Your task to perform on an android device: toggle javascript in the chrome app Image 0: 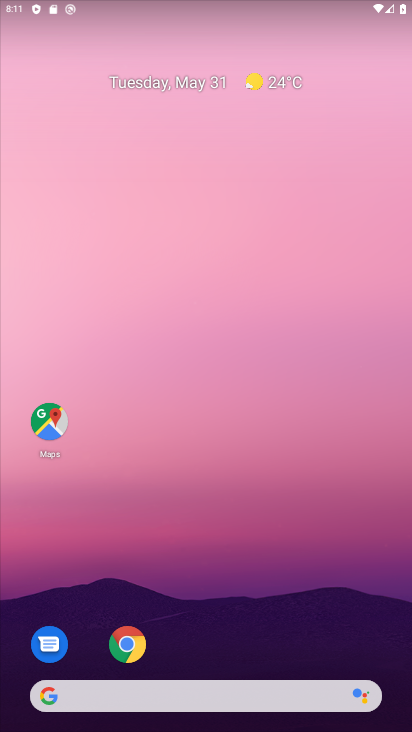
Step 0: click (121, 643)
Your task to perform on an android device: toggle javascript in the chrome app Image 1: 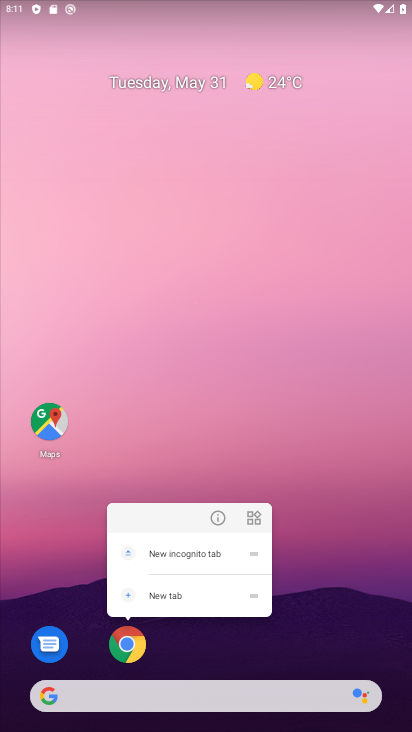
Step 1: click (216, 510)
Your task to perform on an android device: toggle javascript in the chrome app Image 2: 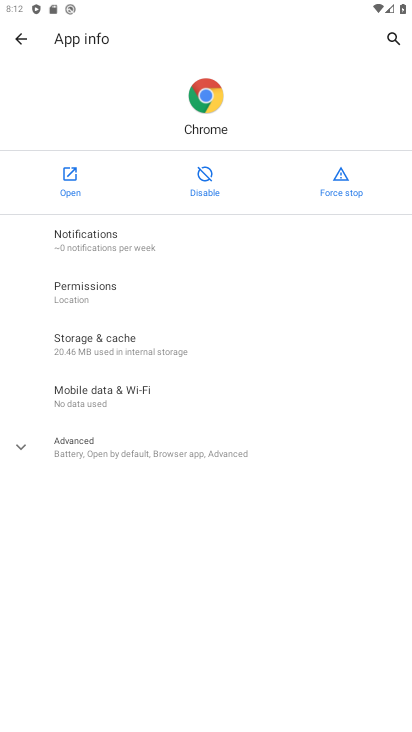
Step 2: click (70, 183)
Your task to perform on an android device: toggle javascript in the chrome app Image 3: 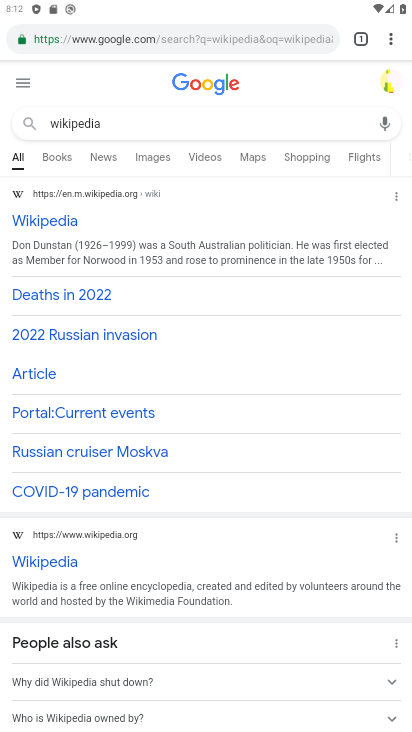
Step 3: click (390, 36)
Your task to perform on an android device: toggle javascript in the chrome app Image 4: 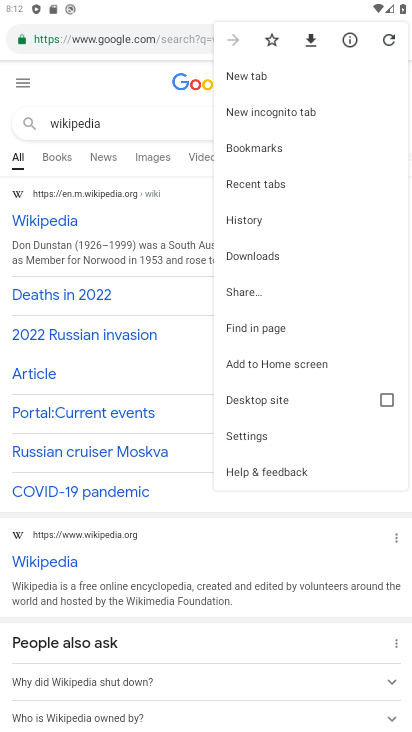
Step 4: click (274, 434)
Your task to perform on an android device: toggle javascript in the chrome app Image 5: 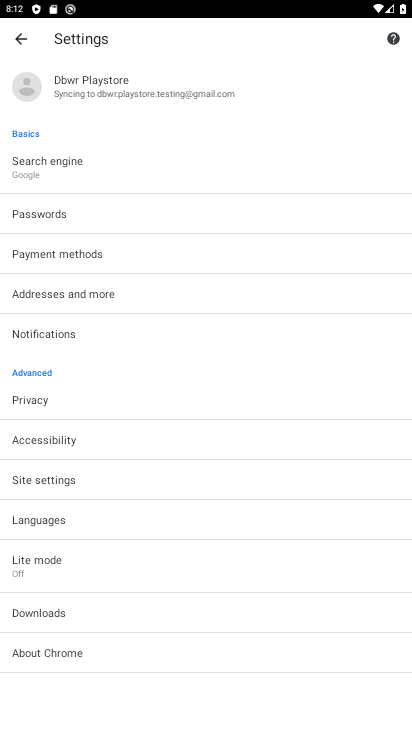
Step 5: click (49, 490)
Your task to perform on an android device: toggle javascript in the chrome app Image 6: 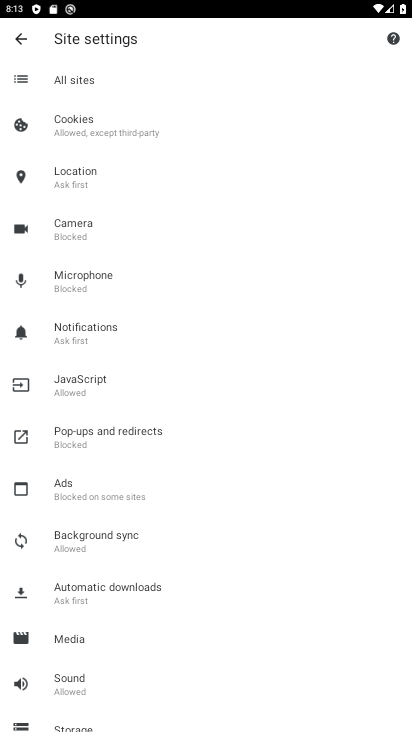
Step 6: click (65, 397)
Your task to perform on an android device: toggle javascript in the chrome app Image 7: 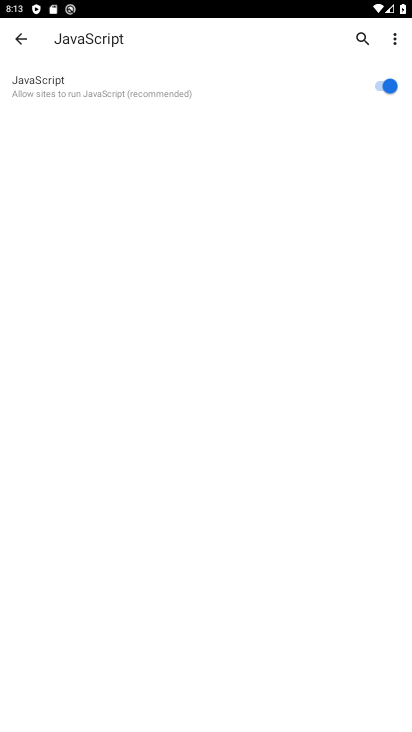
Step 7: click (376, 88)
Your task to perform on an android device: toggle javascript in the chrome app Image 8: 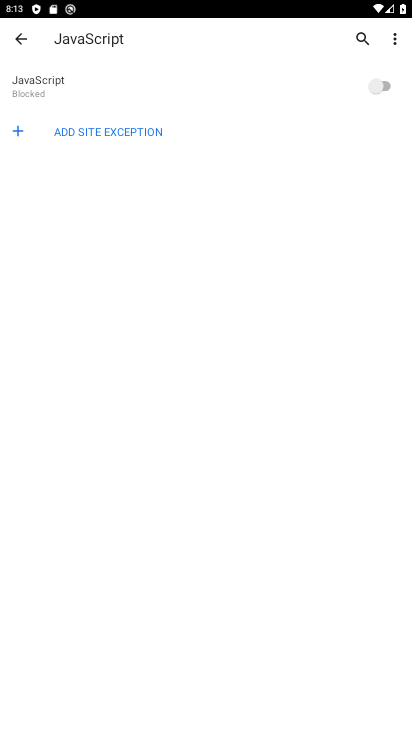
Step 8: task complete